Your task to perform on an android device: See recent photos Image 0: 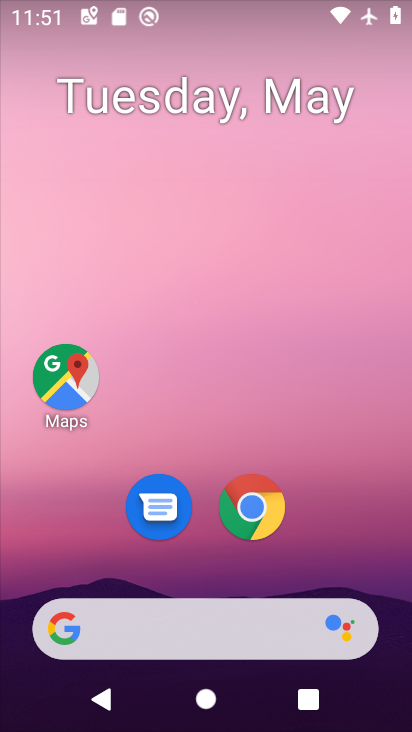
Step 0: drag from (244, 697) to (152, 171)
Your task to perform on an android device: See recent photos Image 1: 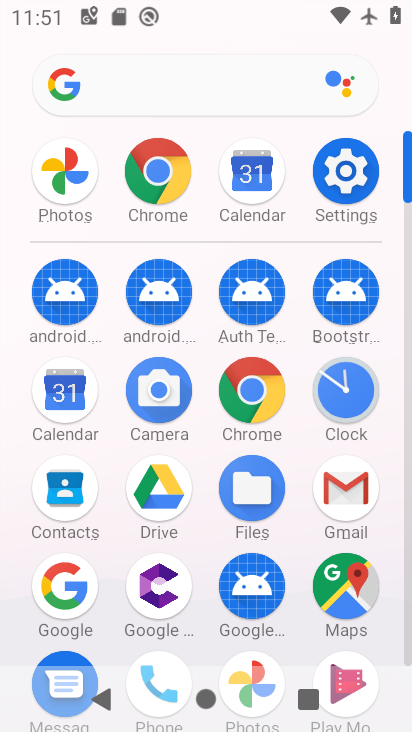
Step 1: click (61, 180)
Your task to perform on an android device: See recent photos Image 2: 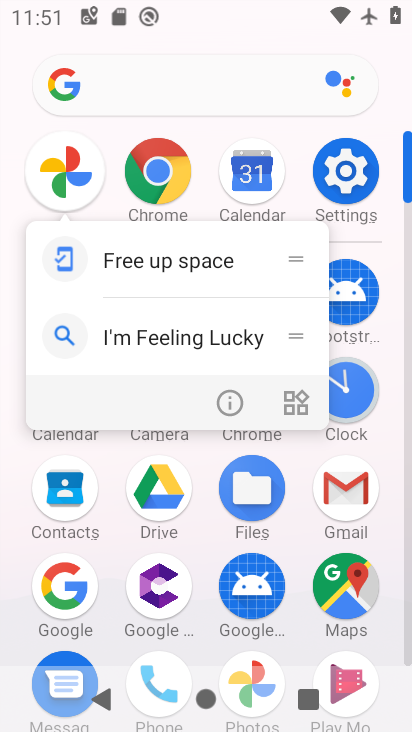
Step 2: click (61, 179)
Your task to perform on an android device: See recent photos Image 3: 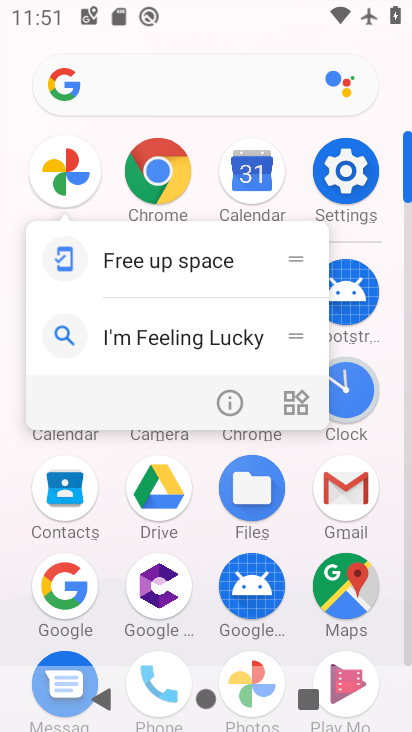
Step 3: click (61, 178)
Your task to perform on an android device: See recent photos Image 4: 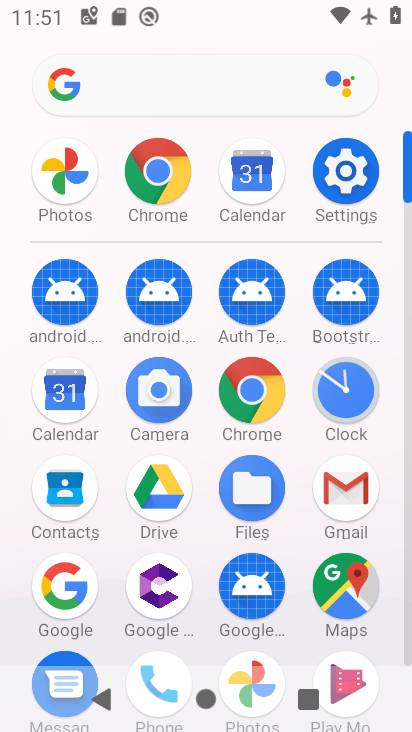
Step 4: click (63, 177)
Your task to perform on an android device: See recent photos Image 5: 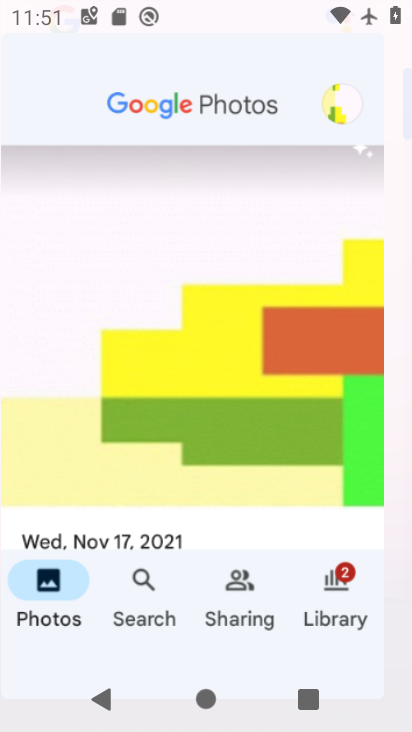
Step 5: click (84, 166)
Your task to perform on an android device: See recent photos Image 6: 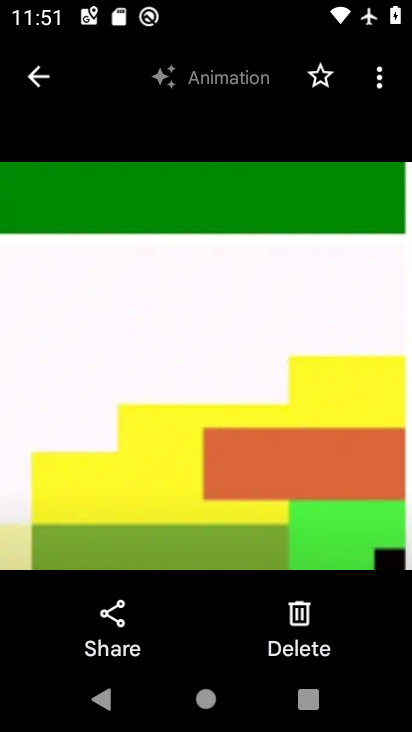
Step 6: task complete